Your task to perform on an android device: View the shopping cart on amazon.com. Add "logitech g910" to the cart on amazon.com, then select checkout. Image 0: 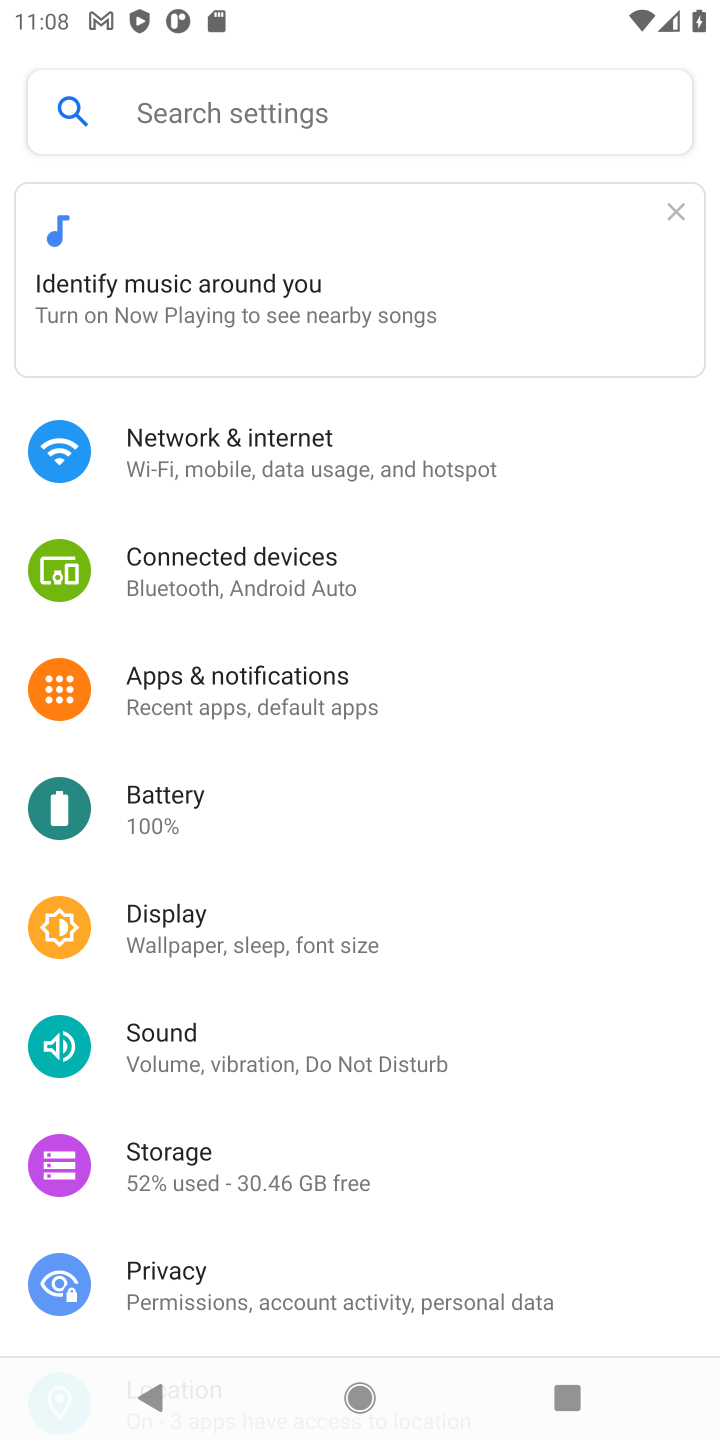
Step 0: press home button
Your task to perform on an android device: View the shopping cart on amazon.com. Add "logitech g910" to the cart on amazon.com, then select checkout. Image 1: 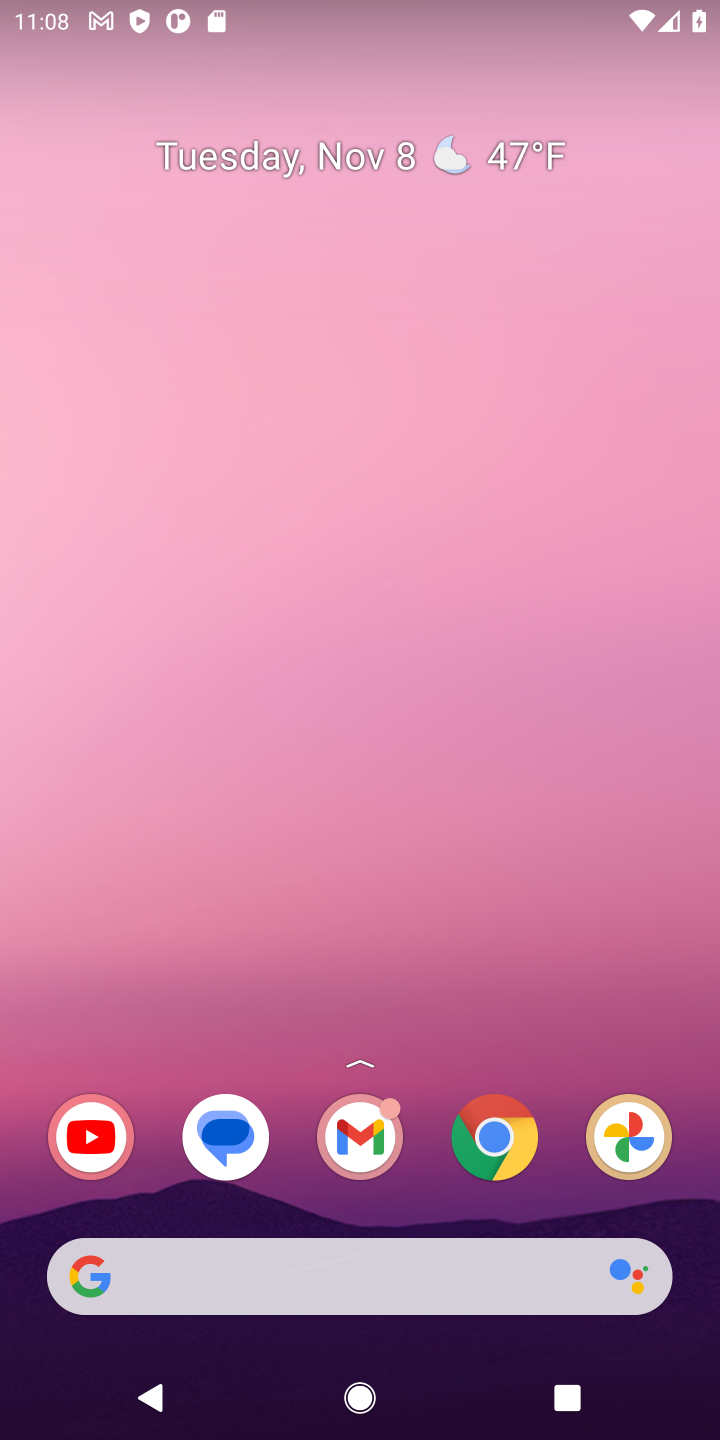
Step 1: click (497, 1138)
Your task to perform on an android device: View the shopping cart on amazon.com. Add "logitech g910" to the cart on amazon.com, then select checkout. Image 2: 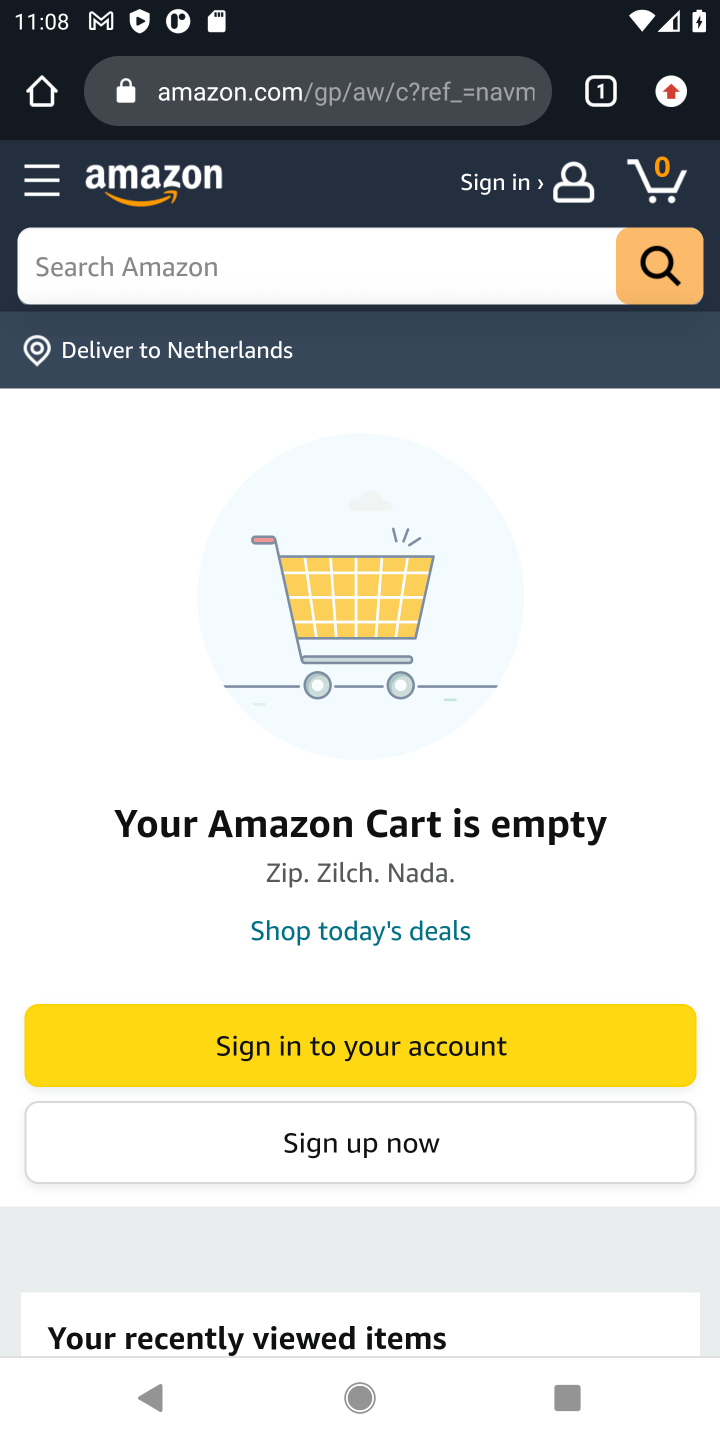
Step 2: click (439, 71)
Your task to perform on an android device: View the shopping cart on amazon.com. Add "logitech g910" to the cart on amazon.com, then select checkout. Image 3: 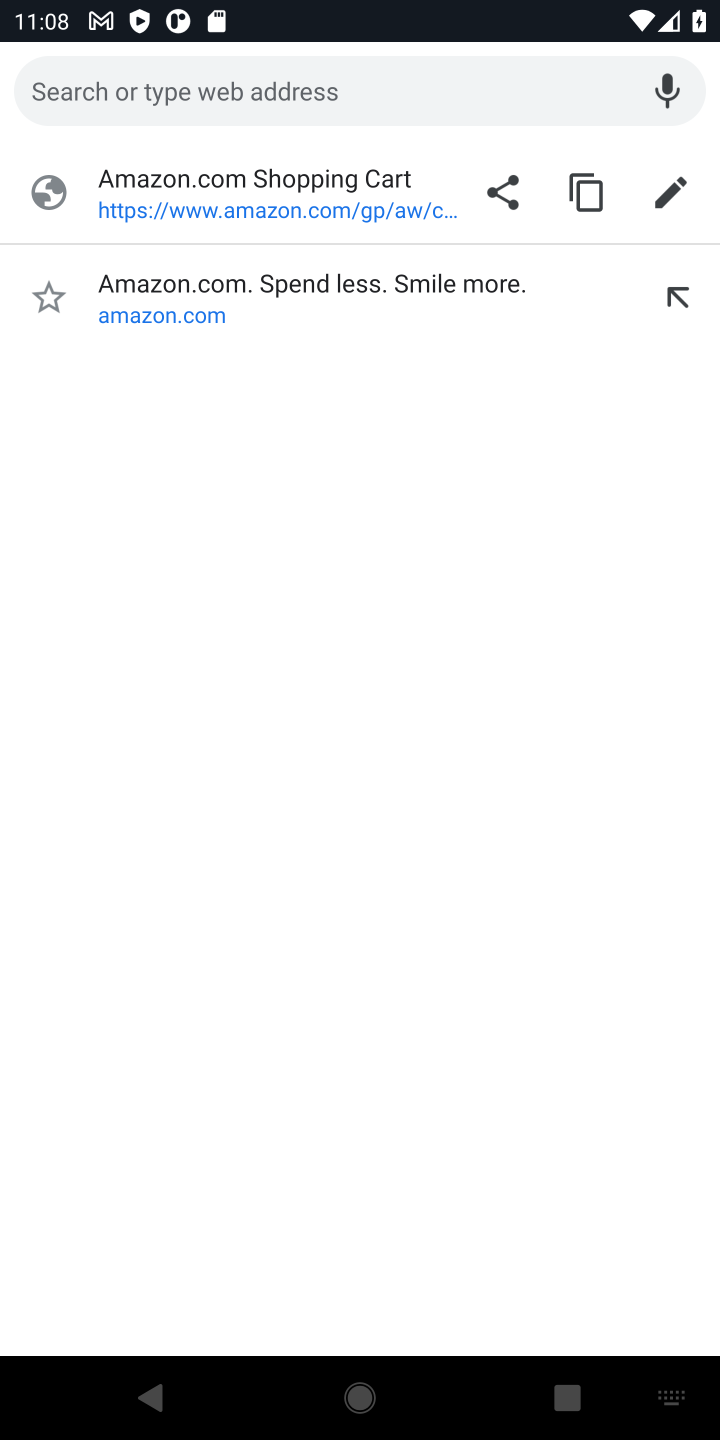
Step 3: type "amazon.com"
Your task to perform on an android device: View the shopping cart on amazon.com. Add "logitech g910" to the cart on amazon.com, then select checkout. Image 4: 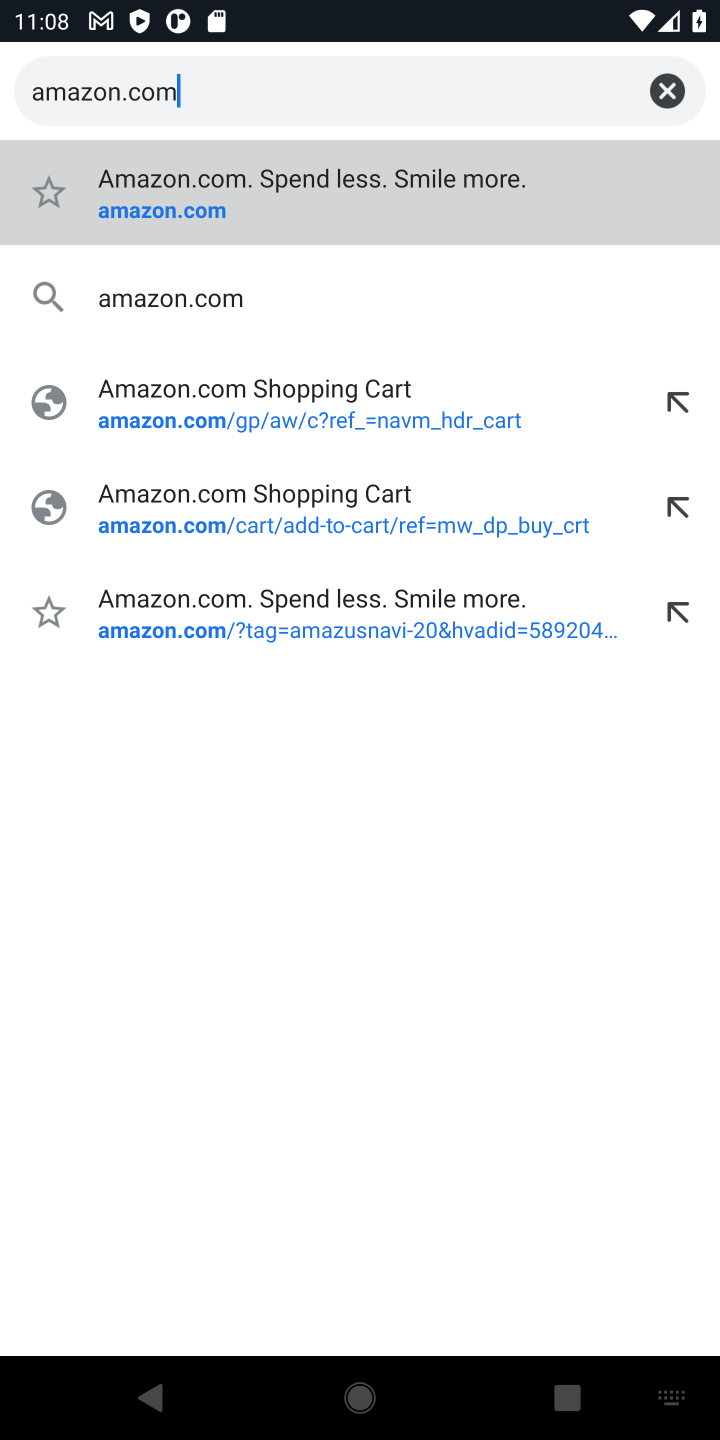
Step 4: click (134, 293)
Your task to perform on an android device: View the shopping cart on amazon.com. Add "logitech g910" to the cart on amazon.com, then select checkout. Image 5: 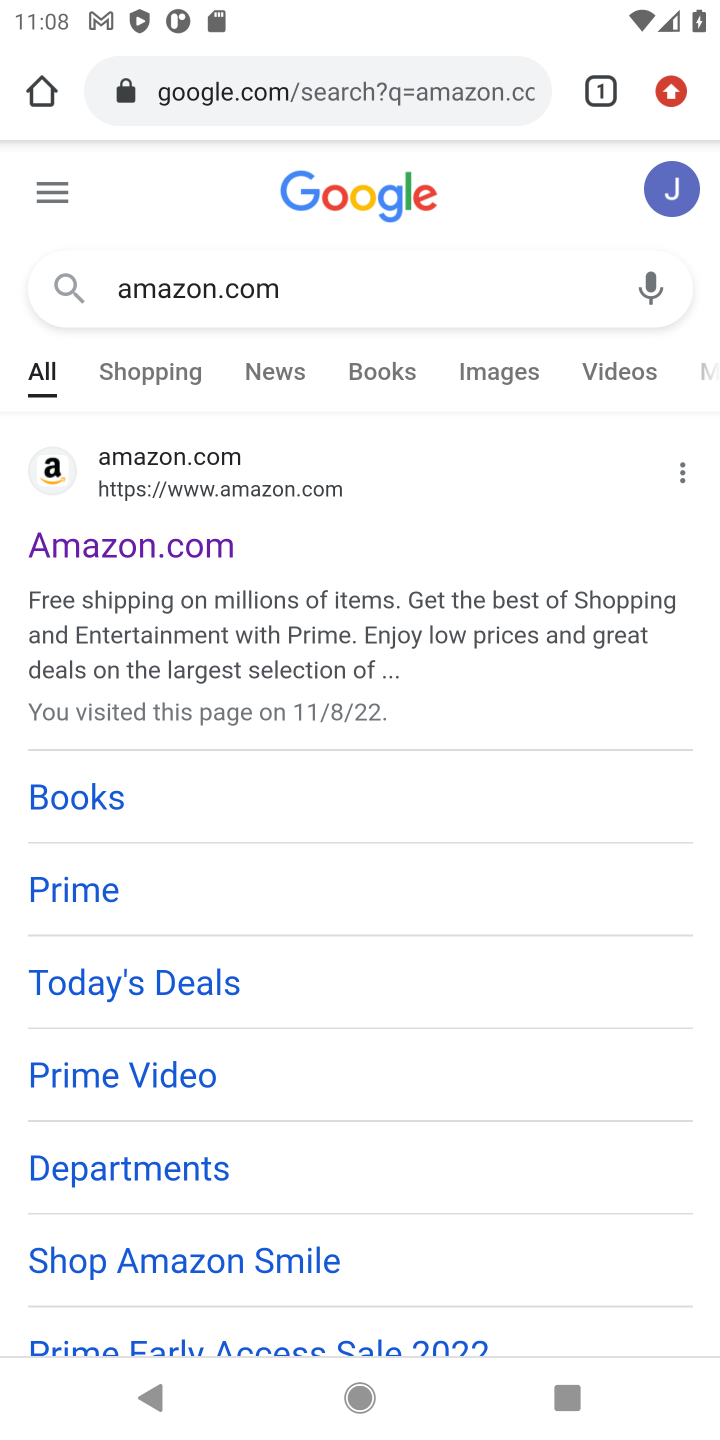
Step 5: click (183, 549)
Your task to perform on an android device: View the shopping cart on amazon.com. Add "logitech g910" to the cart on amazon.com, then select checkout. Image 6: 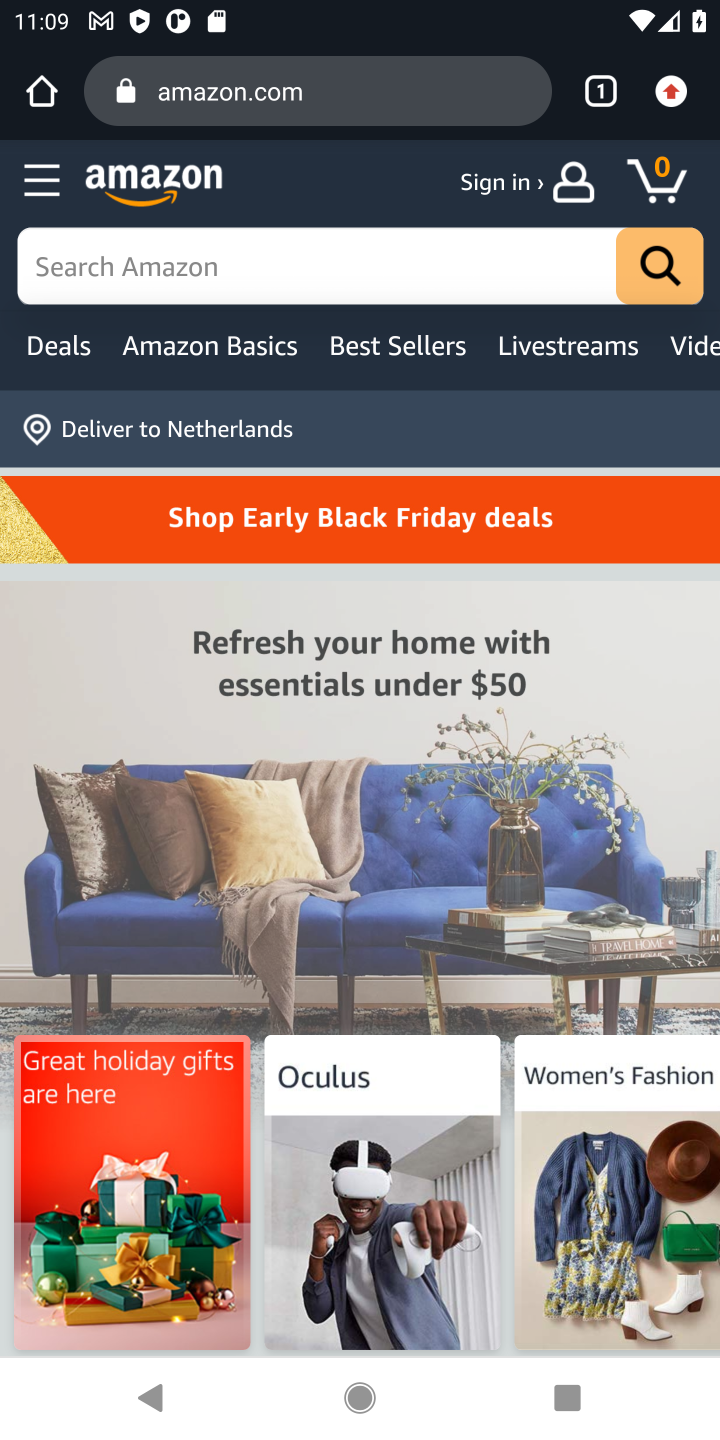
Step 6: click (675, 170)
Your task to perform on an android device: View the shopping cart on amazon.com. Add "logitech g910" to the cart on amazon.com, then select checkout. Image 7: 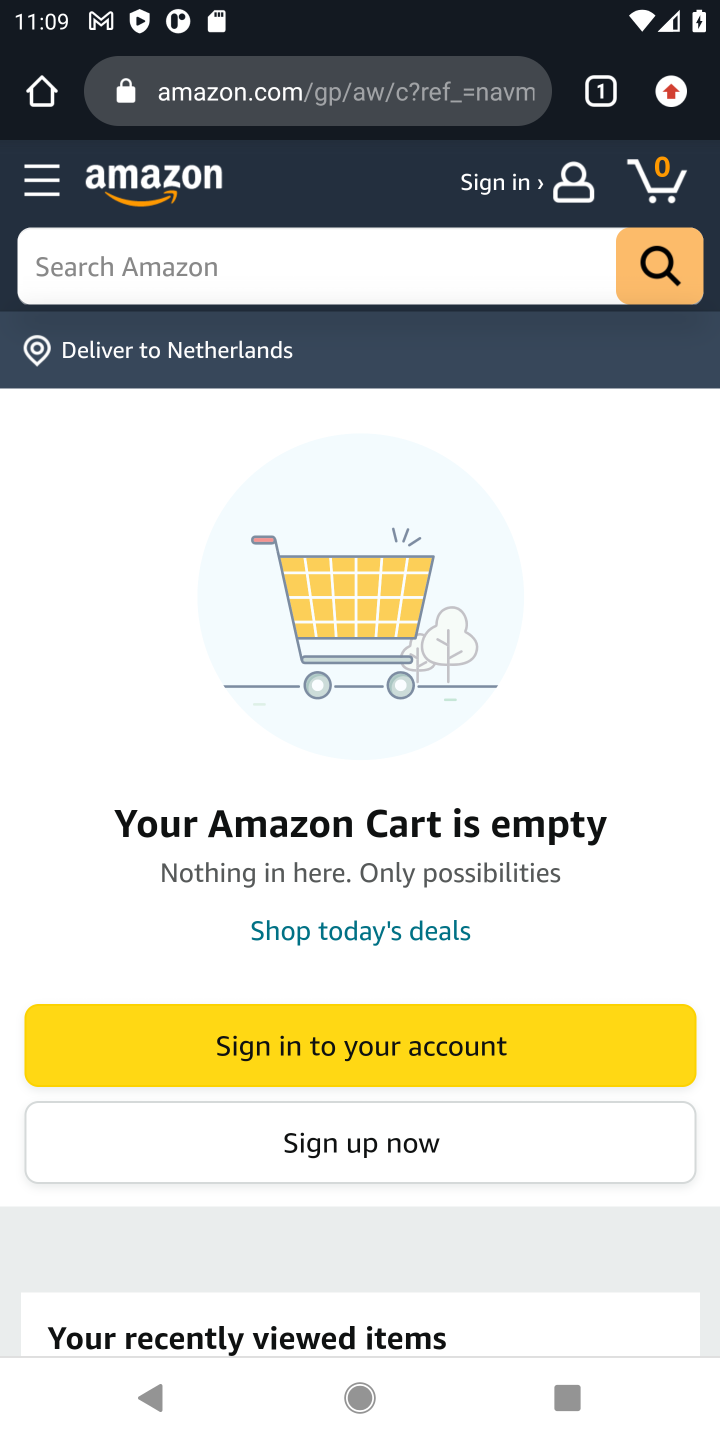
Step 7: click (351, 271)
Your task to perform on an android device: View the shopping cart on amazon.com. Add "logitech g910" to the cart on amazon.com, then select checkout. Image 8: 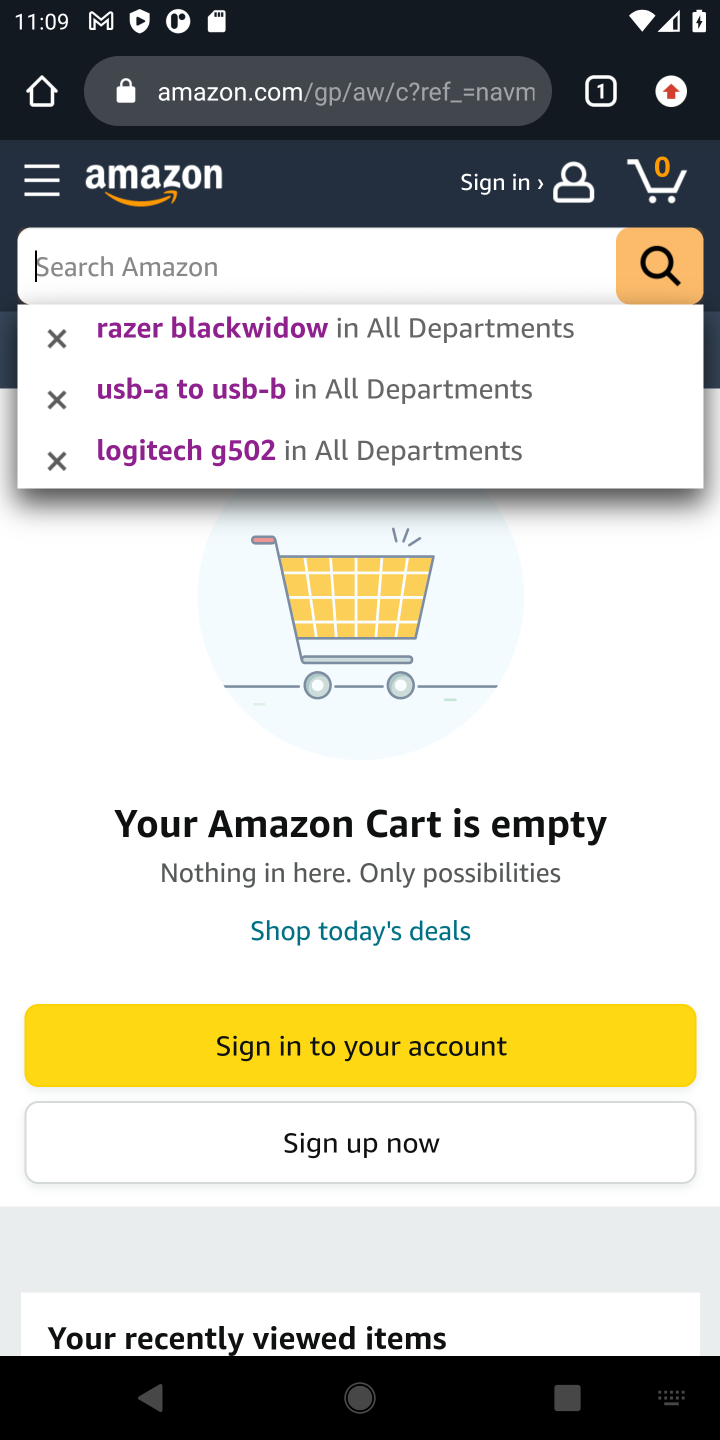
Step 8: type "logitech g910"
Your task to perform on an android device: View the shopping cart on amazon.com. Add "logitech g910" to the cart on amazon.com, then select checkout. Image 9: 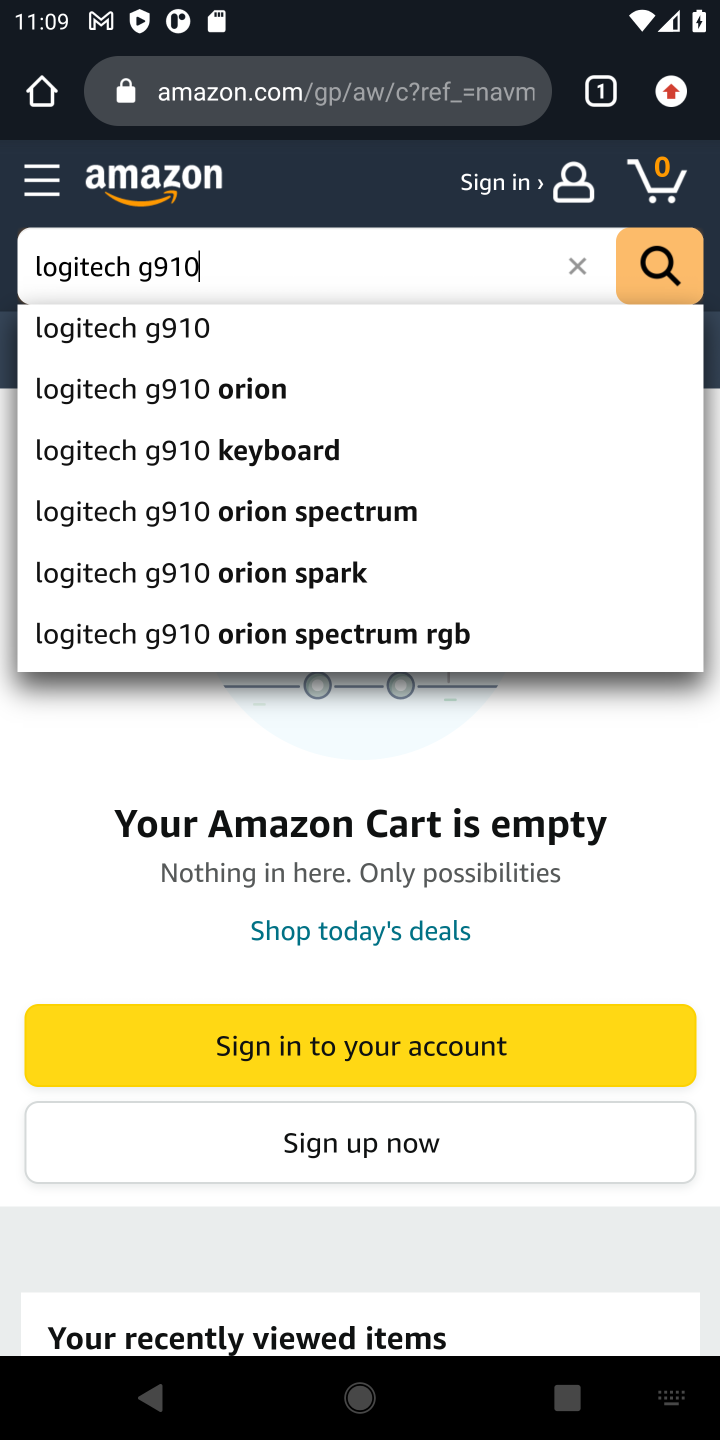
Step 9: click (195, 314)
Your task to perform on an android device: View the shopping cart on amazon.com. Add "logitech g910" to the cart on amazon.com, then select checkout. Image 10: 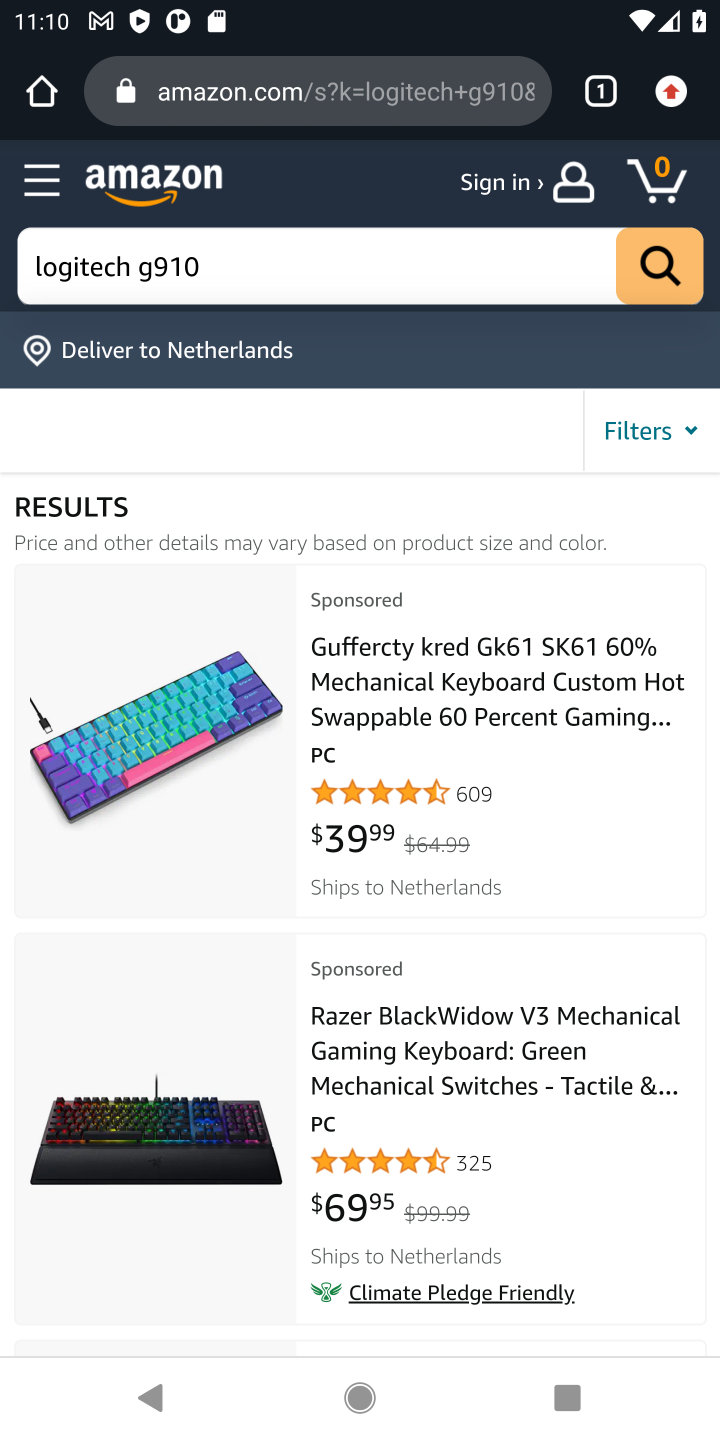
Step 10: drag from (476, 1084) to (500, 705)
Your task to perform on an android device: View the shopping cart on amazon.com. Add "logitech g910" to the cart on amazon.com, then select checkout. Image 11: 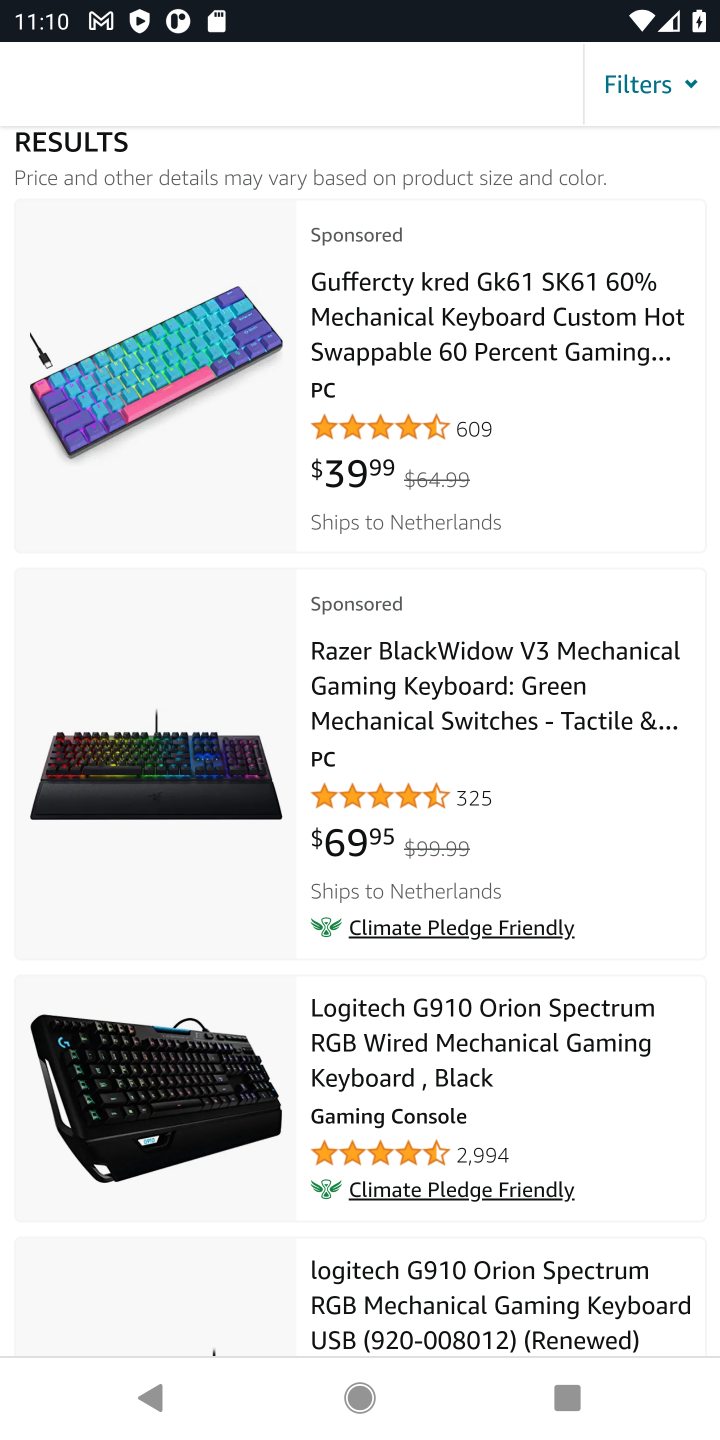
Step 11: click (455, 1033)
Your task to perform on an android device: View the shopping cart on amazon.com. Add "logitech g910" to the cart on amazon.com, then select checkout. Image 12: 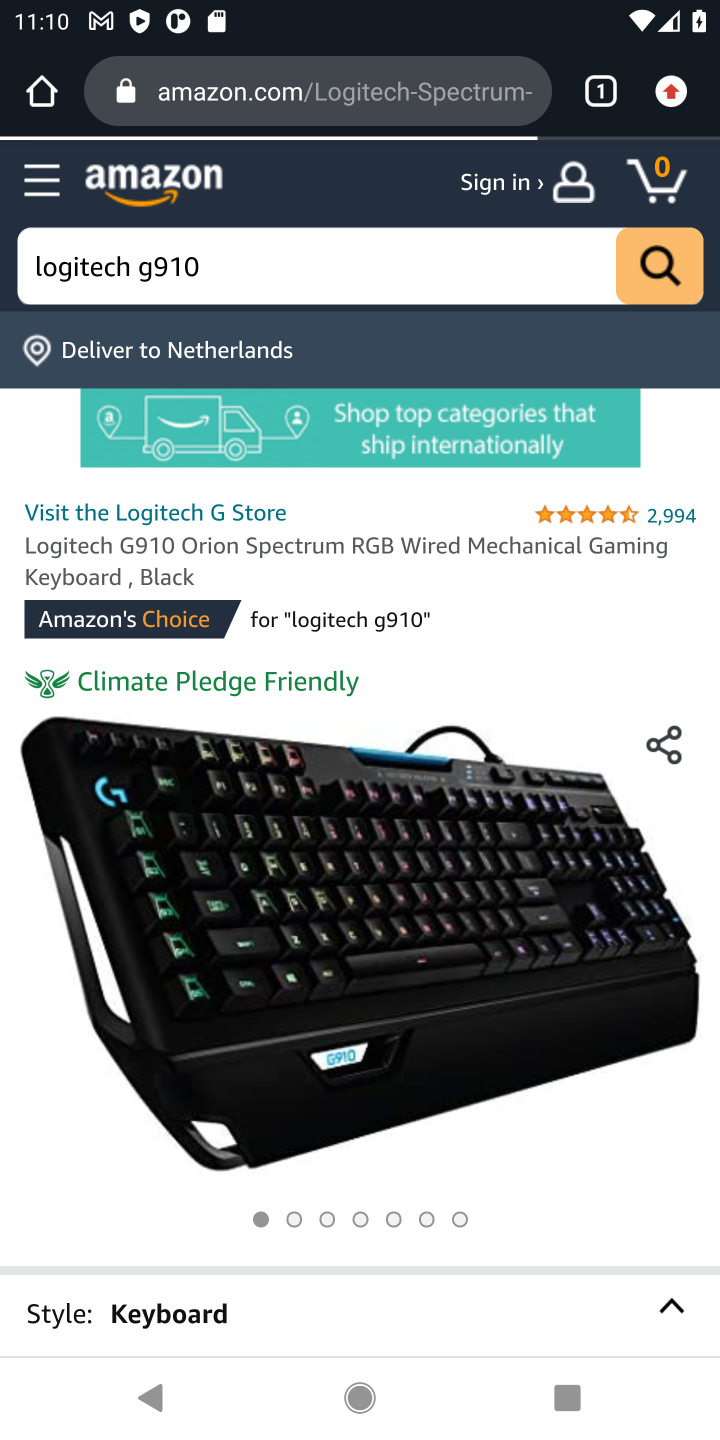
Step 12: drag from (507, 1137) to (526, 562)
Your task to perform on an android device: View the shopping cart on amazon.com. Add "logitech g910" to the cart on amazon.com, then select checkout. Image 13: 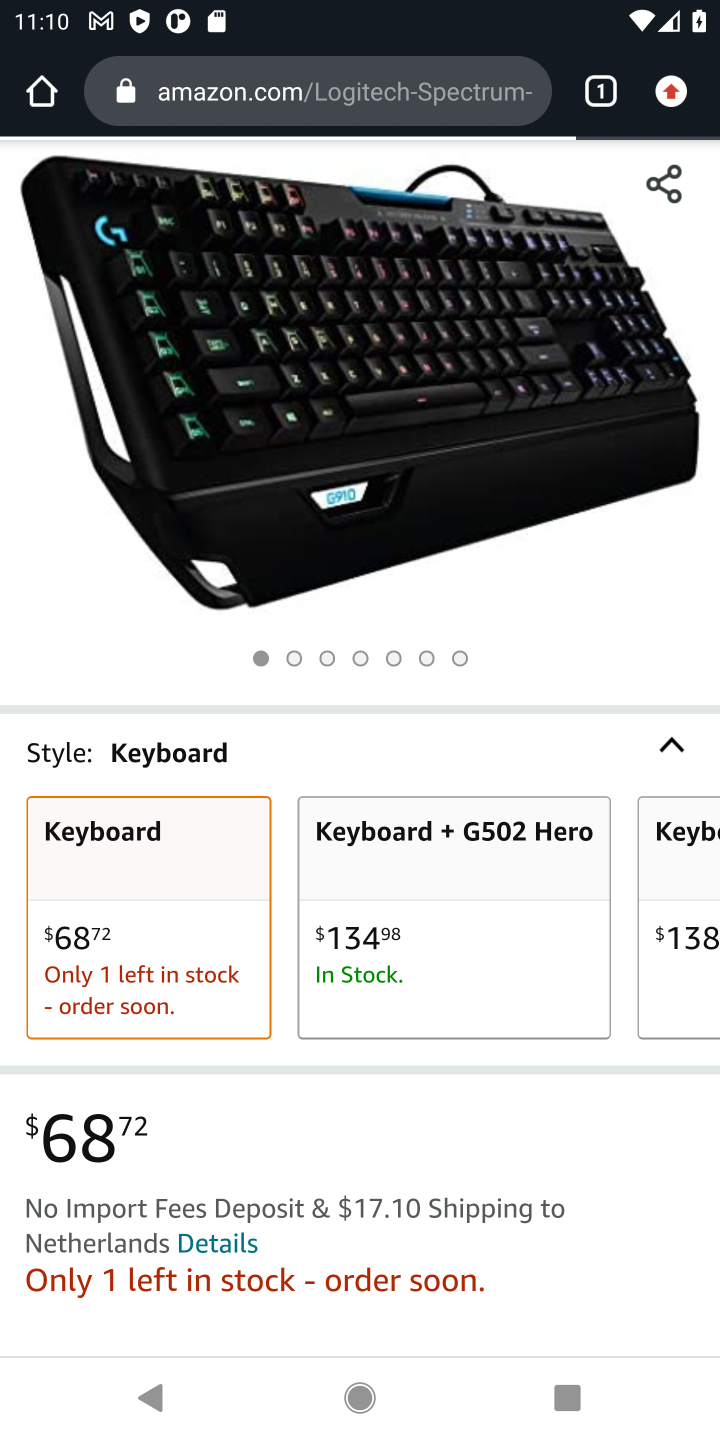
Step 13: drag from (440, 1144) to (483, 556)
Your task to perform on an android device: View the shopping cart on amazon.com. Add "logitech g910" to the cart on amazon.com, then select checkout. Image 14: 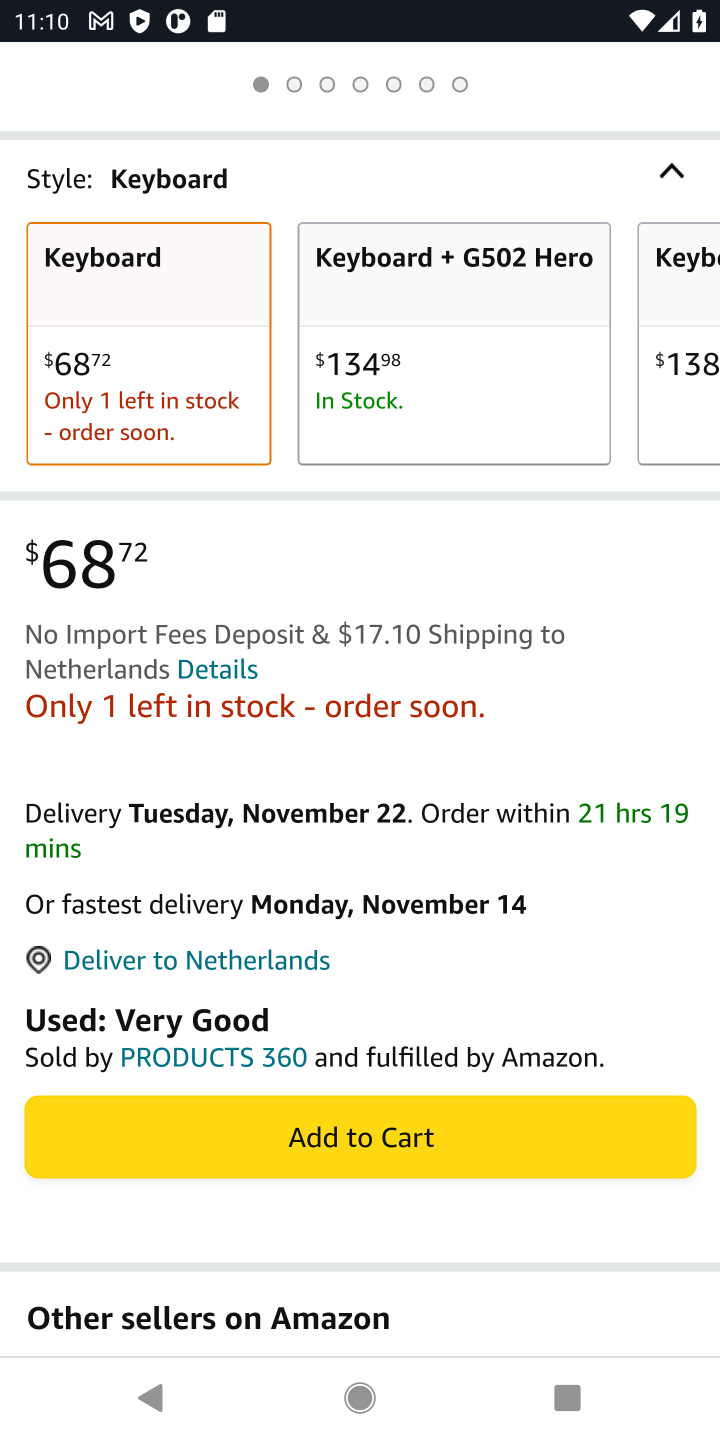
Step 14: click (377, 1134)
Your task to perform on an android device: View the shopping cart on amazon.com. Add "logitech g910" to the cart on amazon.com, then select checkout. Image 15: 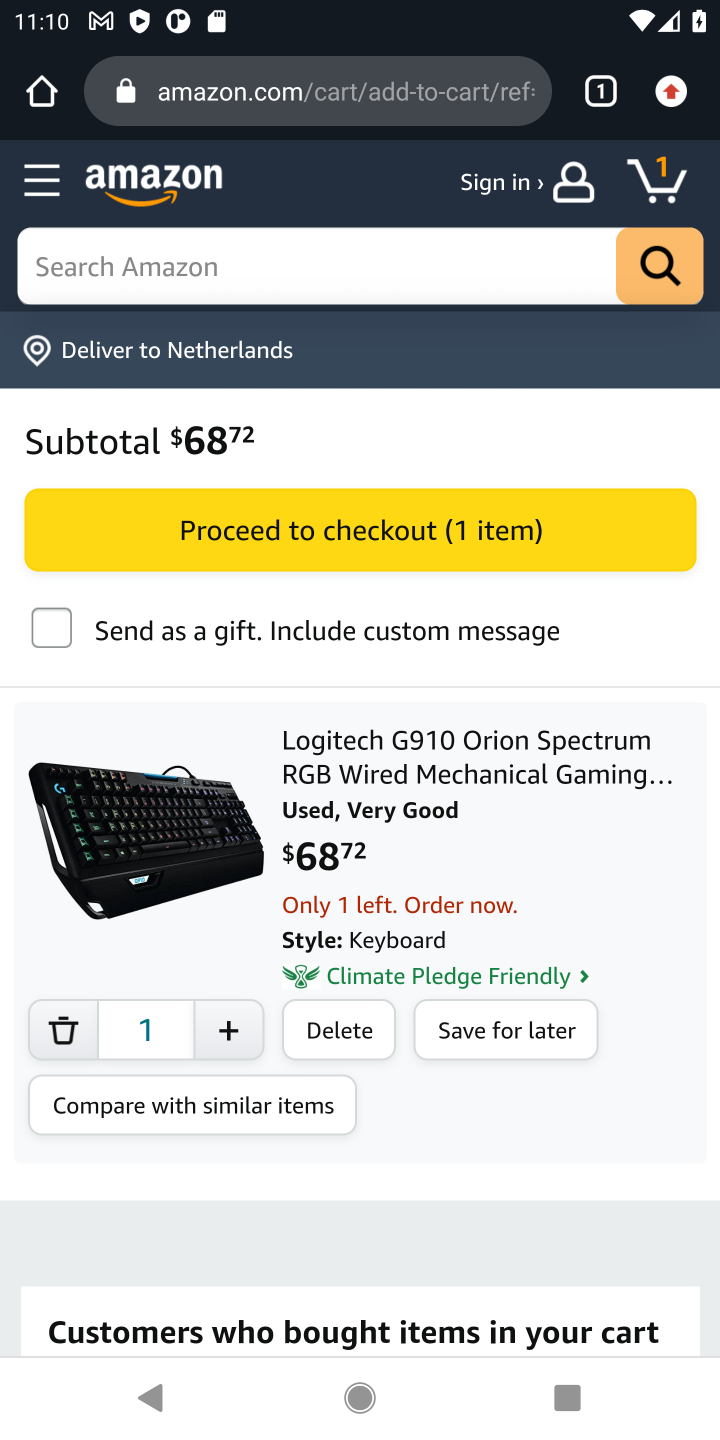
Step 15: click (397, 524)
Your task to perform on an android device: View the shopping cart on amazon.com. Add "logitech g910" to the cart on amazon.com, then select checkout. Image 16: 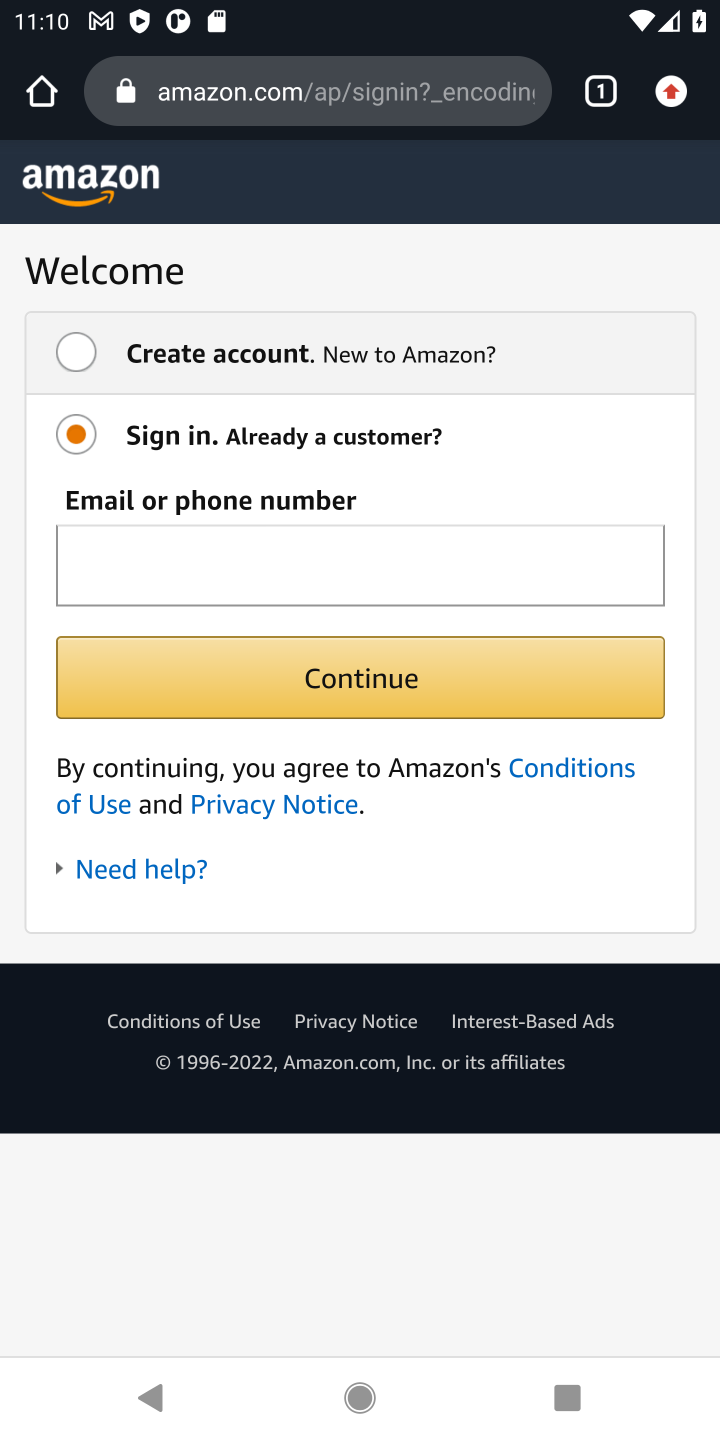
Step 16: task complete